Your task to perform on an android device: Go to internet settings Image 0: 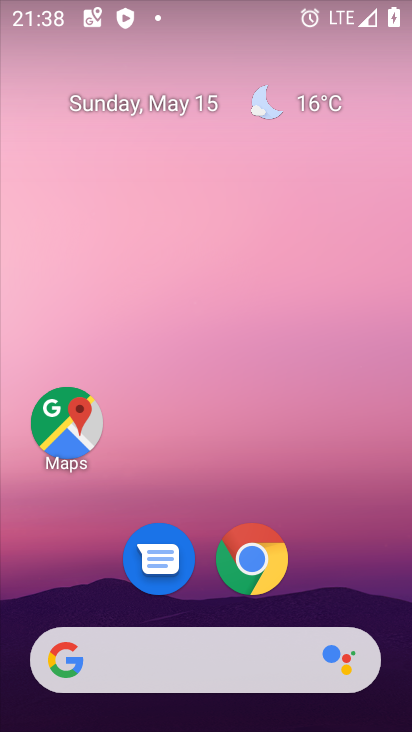
Step 0: drag from (329, 503) to (165, 96)
Your task to perform on an android device: Go to internet settings Image 1: 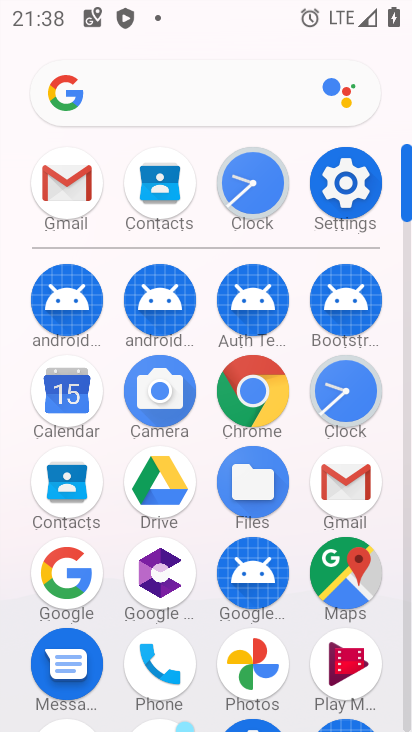
Step 1: click (351, 170)
Your task to perform on an android device: Go to internet settings Image 2: 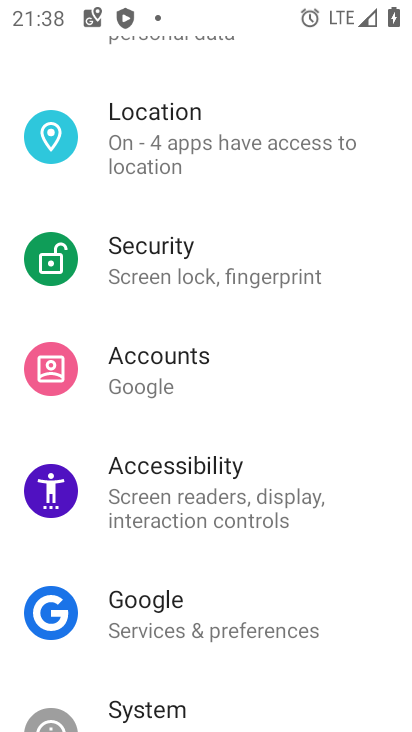
Step 2: drag from (226, 218) to (268, 724)
Your task to perform on an android device: Go to internet settings Image 3: 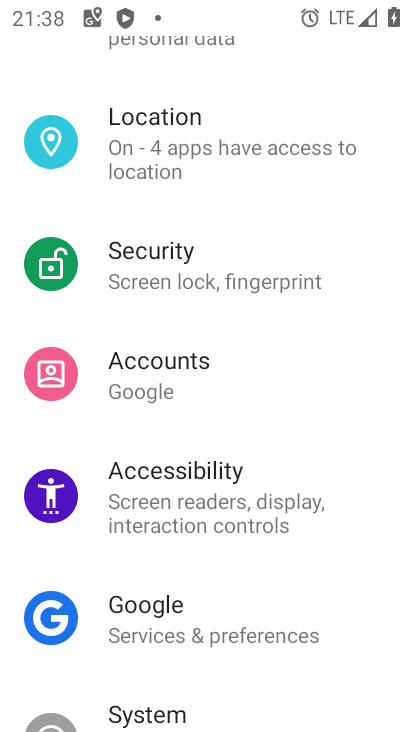
Step 3: drag from (233, 211) to (218, 627)
Your task to perform on an android device: Go to internet settings Image 4: 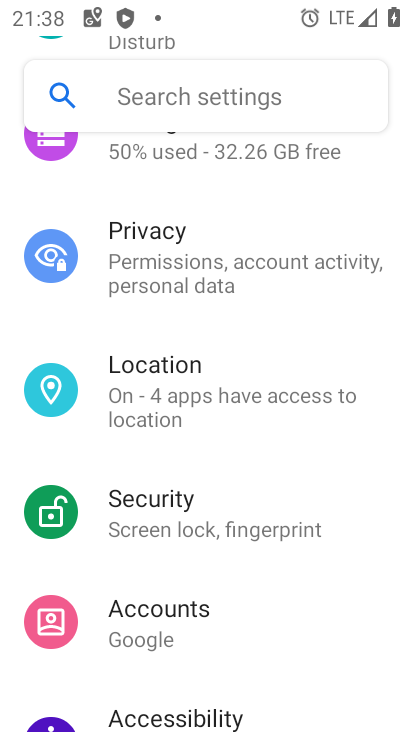
Step 4: click (231, 331)
Your task to perform on an android device: Go to internet settings Image 5: 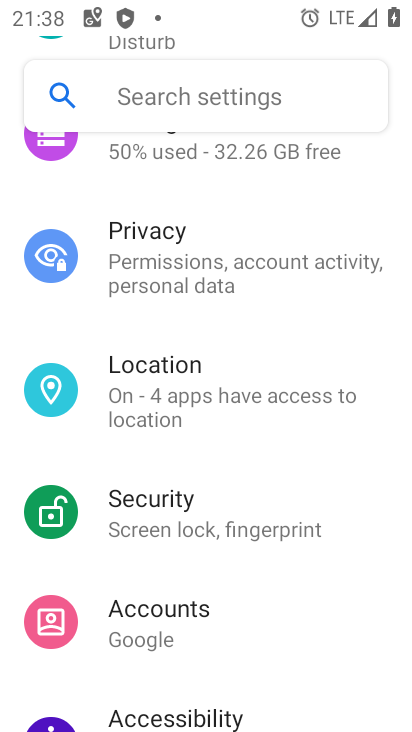
Step 5: drag from (231, 331) to (179, 708)
Your task to perform on an android device: Go to internet settings Image 6: 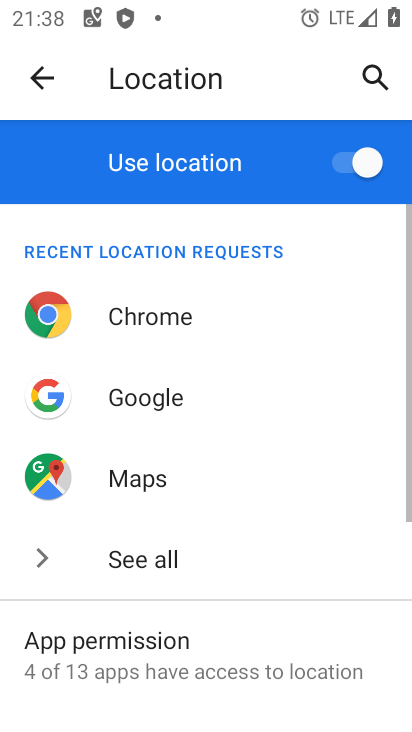
Step 6: click (49, 93)
Your task to perform on an android device: Go to internet settings Image 7: 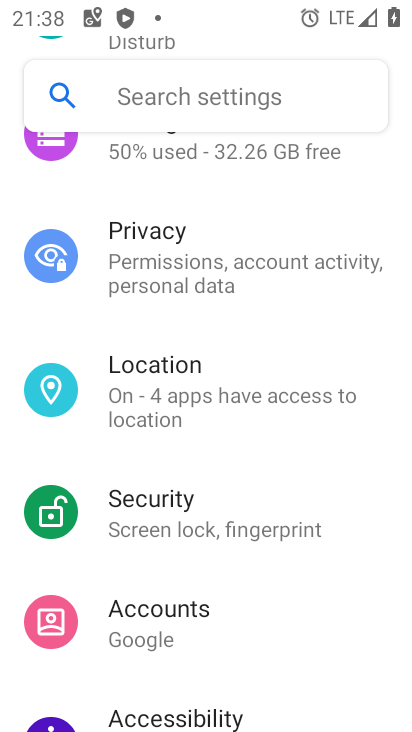
Step 7: drag from (261, 220) to (242, 610)
Your task to perform on an android device: Go to internet settings Image 8: 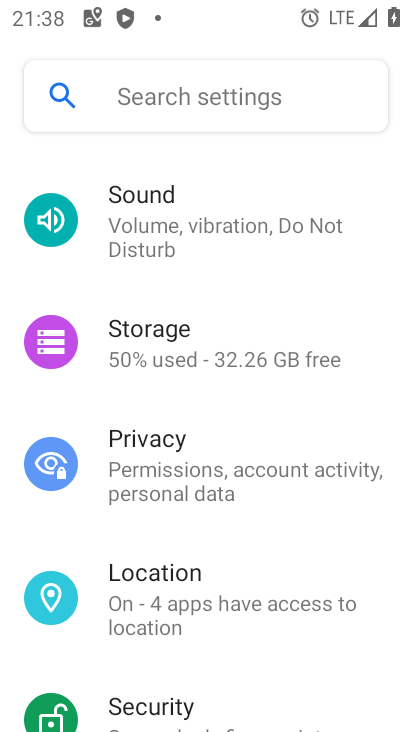
Step 8: drag from (204, 305) to (209, 702)
Your task to perform on an android device: Go to internet settings Image 9: 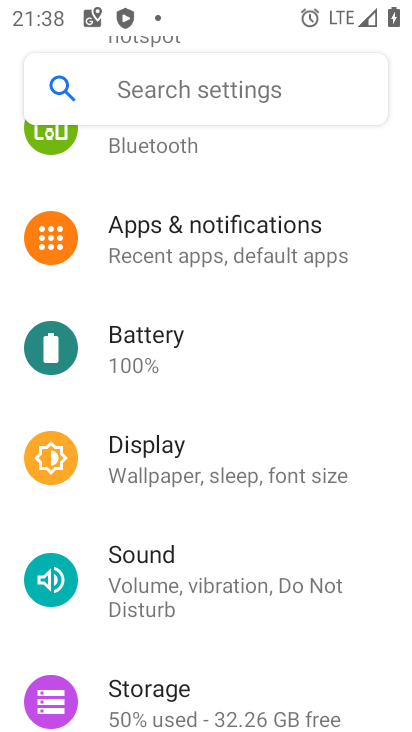
Step 9: drag from (184, 289) to (323, 728)
Your task to perform on an android device: Go to internet settings Image 10: 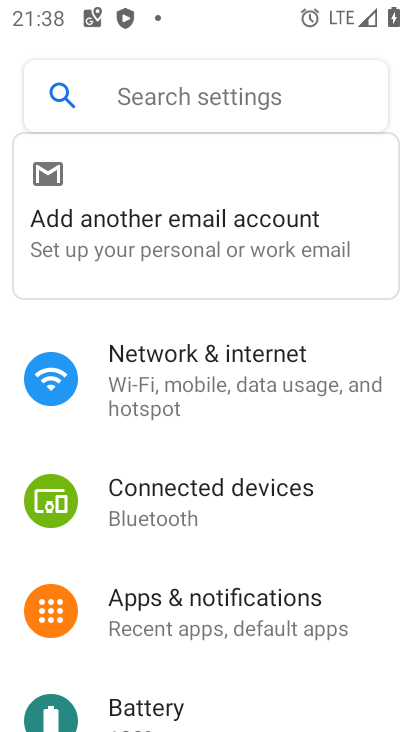
Step 10: click (247, 369)
Your task to perform on an android device: Go to internet settings Image 11: 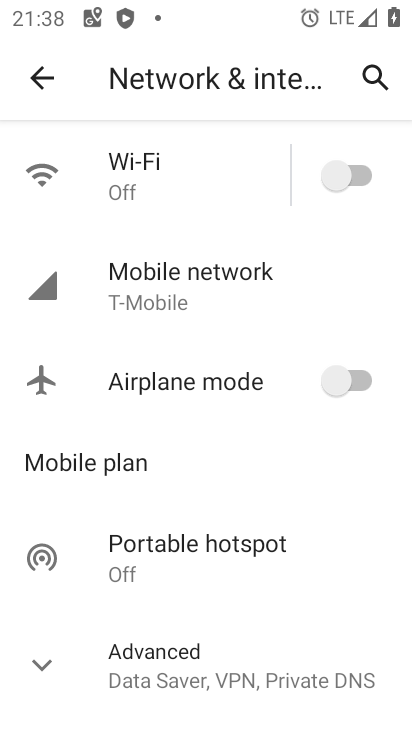
Step 11: task complete